Your task to perform on an android device: turn off priority inbox in the gmail app Image 0: 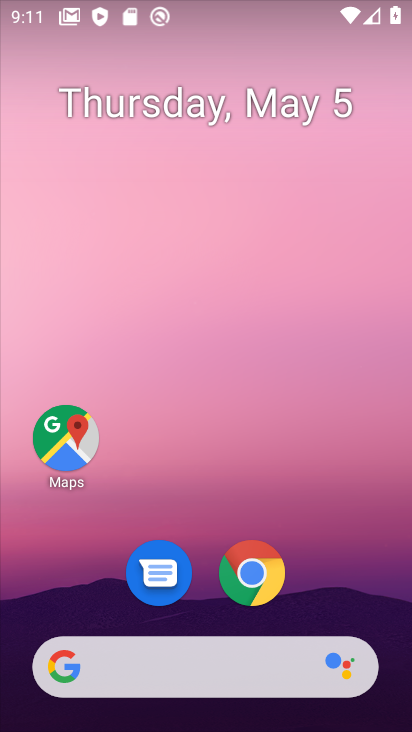
Step 0: drag from (206, 560) to (297, 28)
Your task to perform on an android device: turn off priority inbox in the gmail app Image 1: 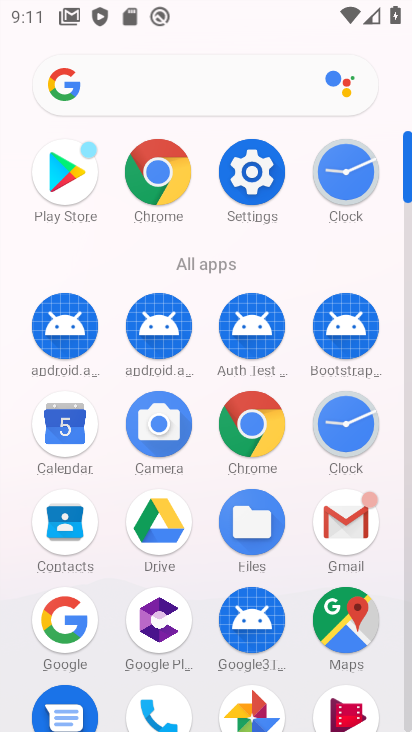
Step 1: click (353, 523)
Your task to perform on an android device: turn off priority inbox in the gmail app Image 2: 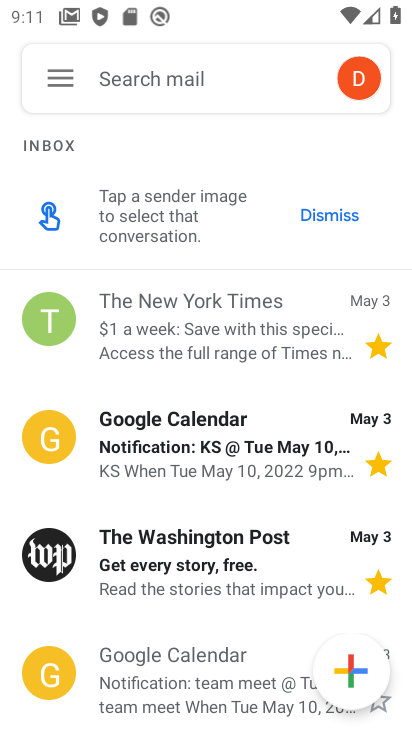
Step 2: click (46, 70)
Your task to perform on an android device: turn off priority inbox in the gmail app Image 3: 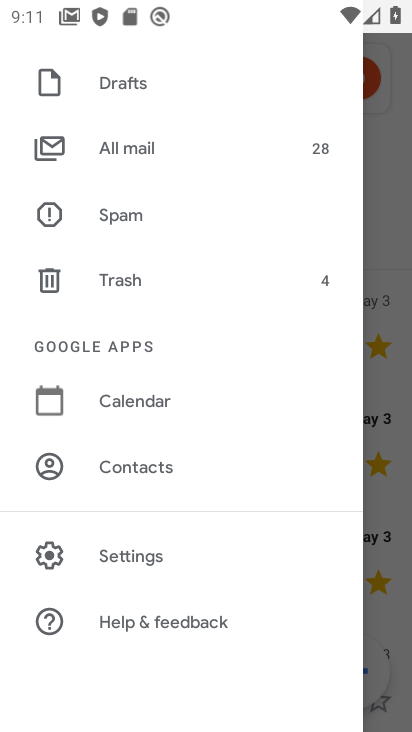
Step 3: click (143, 556)
Your task to perform on an android device: turn off priority inbox in the gmail app Image 4: 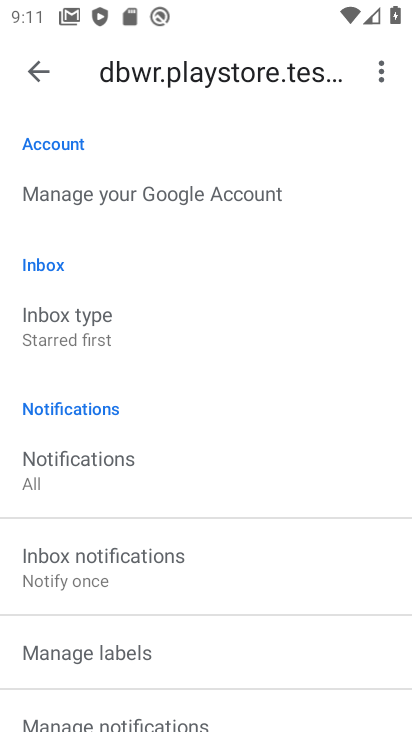
Step 4: drag from (114, 652) to (178, 499)
Your task to perform on an android device: turn off priority inbox in the gmail app Image 5: 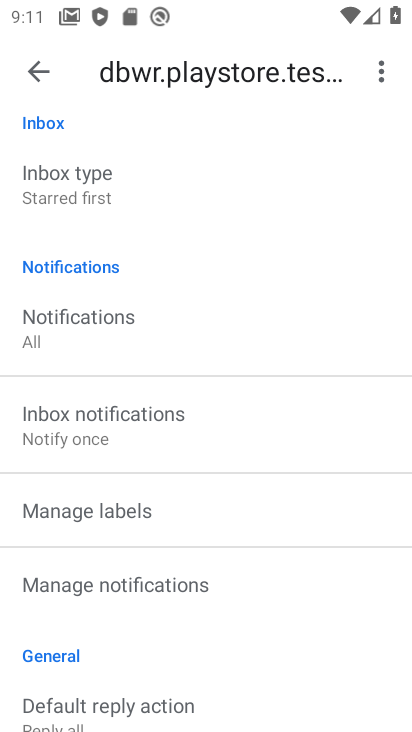
Step 5: click (78, 181)
Your task to perform on an android device: turn off priority inbox in the gmail app Image 6: 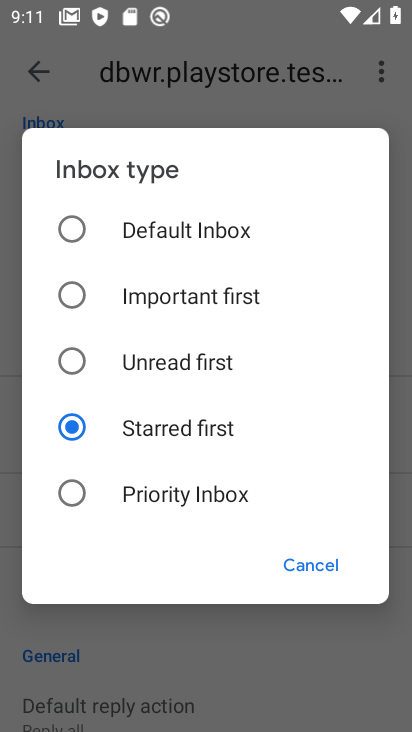
Step 6: click (76, 218)
Your task to perform on an android device: turn off priority inbox in the gmail app Image 7: 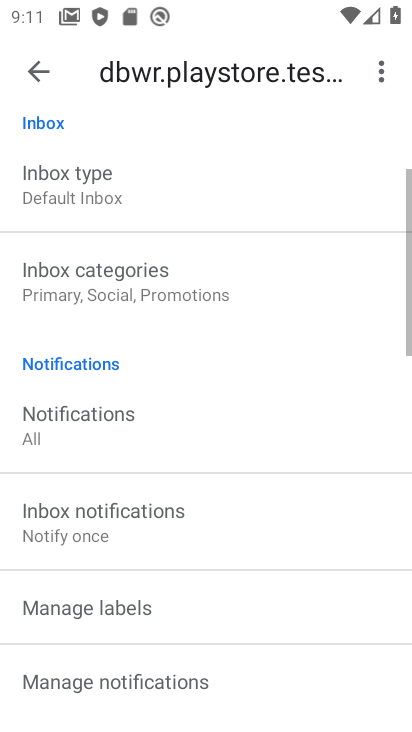
Step 7: task complete